Your task to perform on an android device: Go to notification settings Image 0: 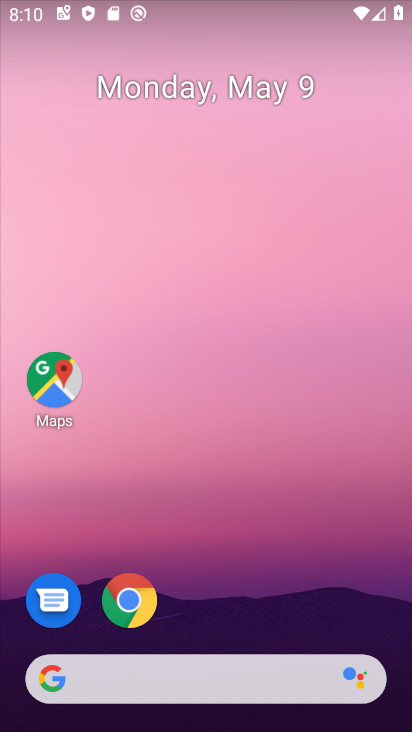
Step 0: drag from (238, 576) to (195, 31)
Your task to perform on an android device: Go to notification settings Image 1: 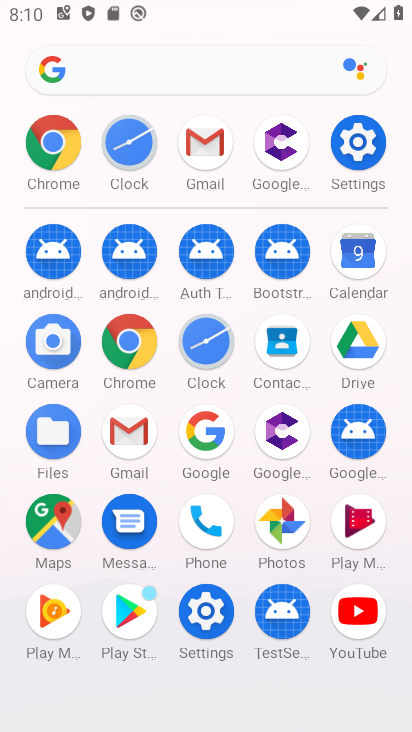
Step 1: click (204, 614)
Your task to perform on an android device: Go to notification settings Image 2: 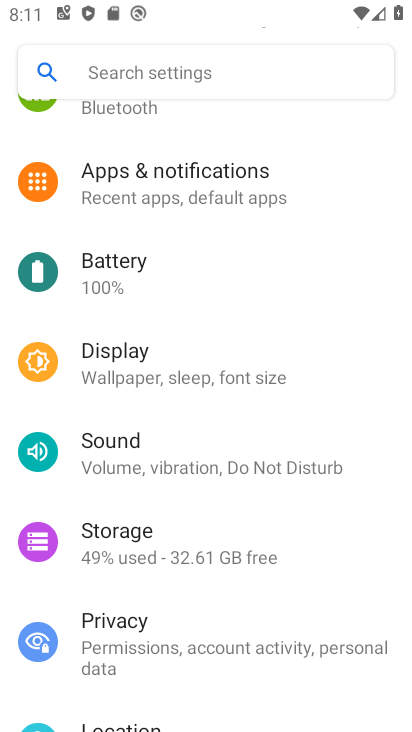
Step 2: click (220, 183)
Your task to perform on an android device: Go to notification settings Image 3: 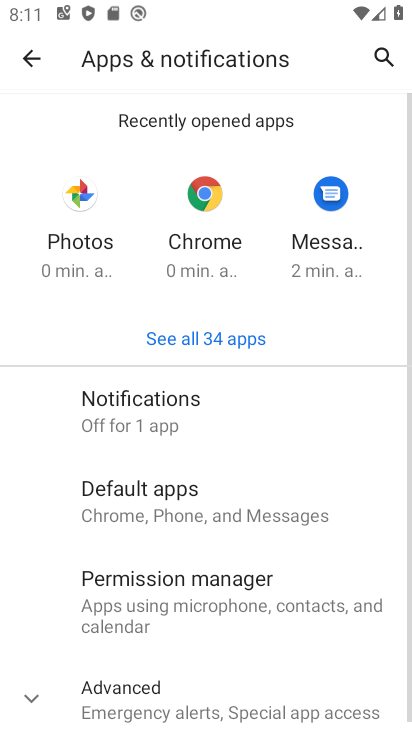
Step 3: click (203, 432)
Your task to perform on an android device: Go to notification settings Image 4: 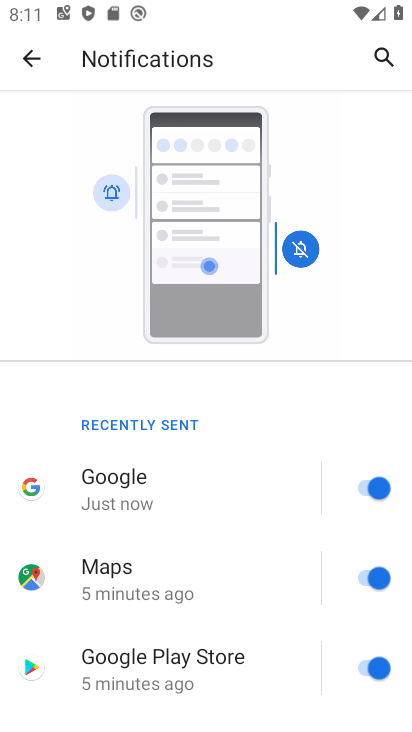
Step 4: drag from (209, 565) to (225, 167)
Your task to perform on an android device: Go to notification settings Image 5: 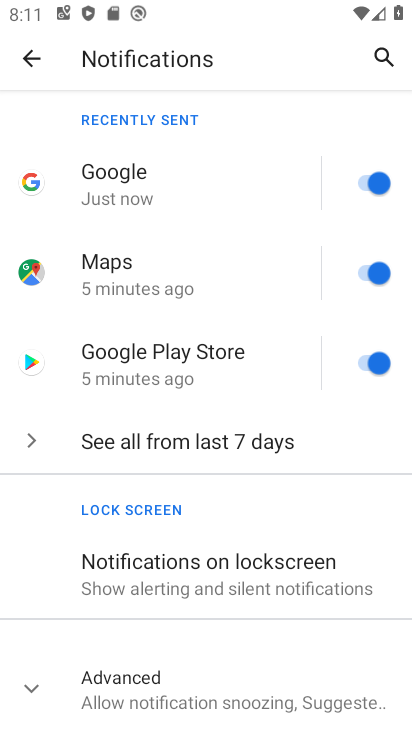
Step 5: click (18, 683)
Your task to perform on an android device: Go to notification settings Image 6: 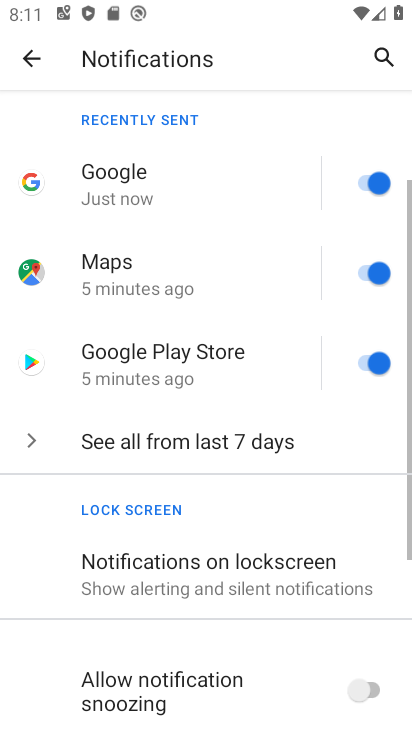
Step 6: task complete